Your task to perform on an android device: Open Google Image 0: 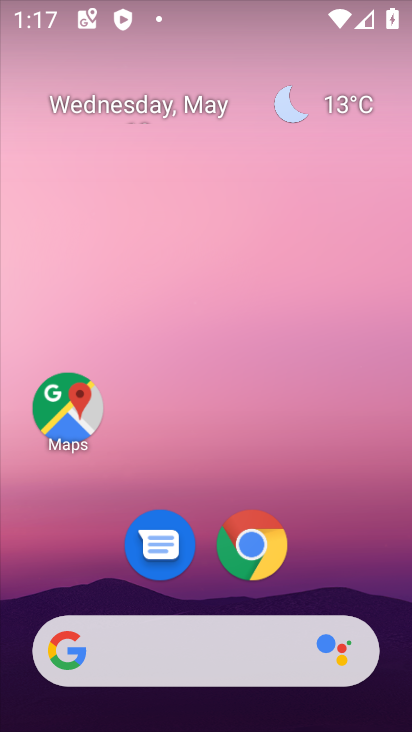
Step 0: drag from (334, 574) to (349, 23)
Your task to perform on an android device: Open Google Image 1: 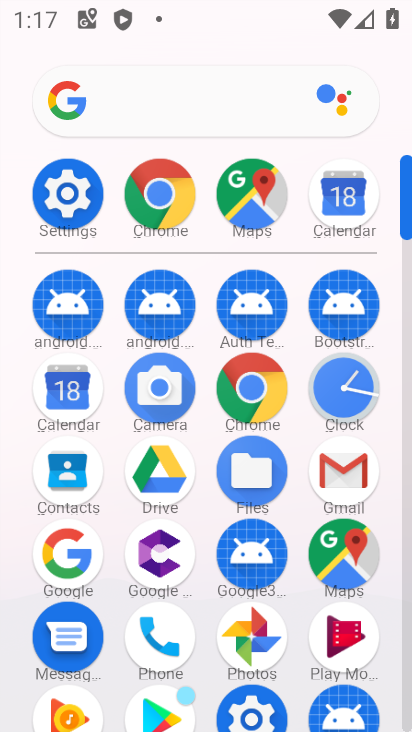
Step 1: click (71, 547)
Your task to perform on an android device: Open Google Image 2: 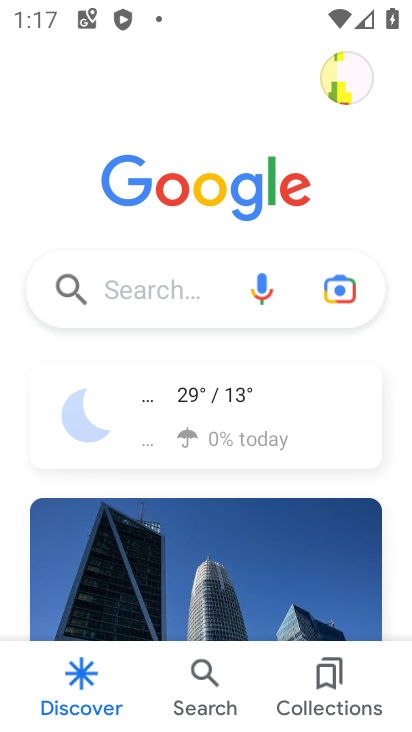
Step 2: task complete